Your task to perform on an android device: Is it going to rain tomorrow? Image 0: 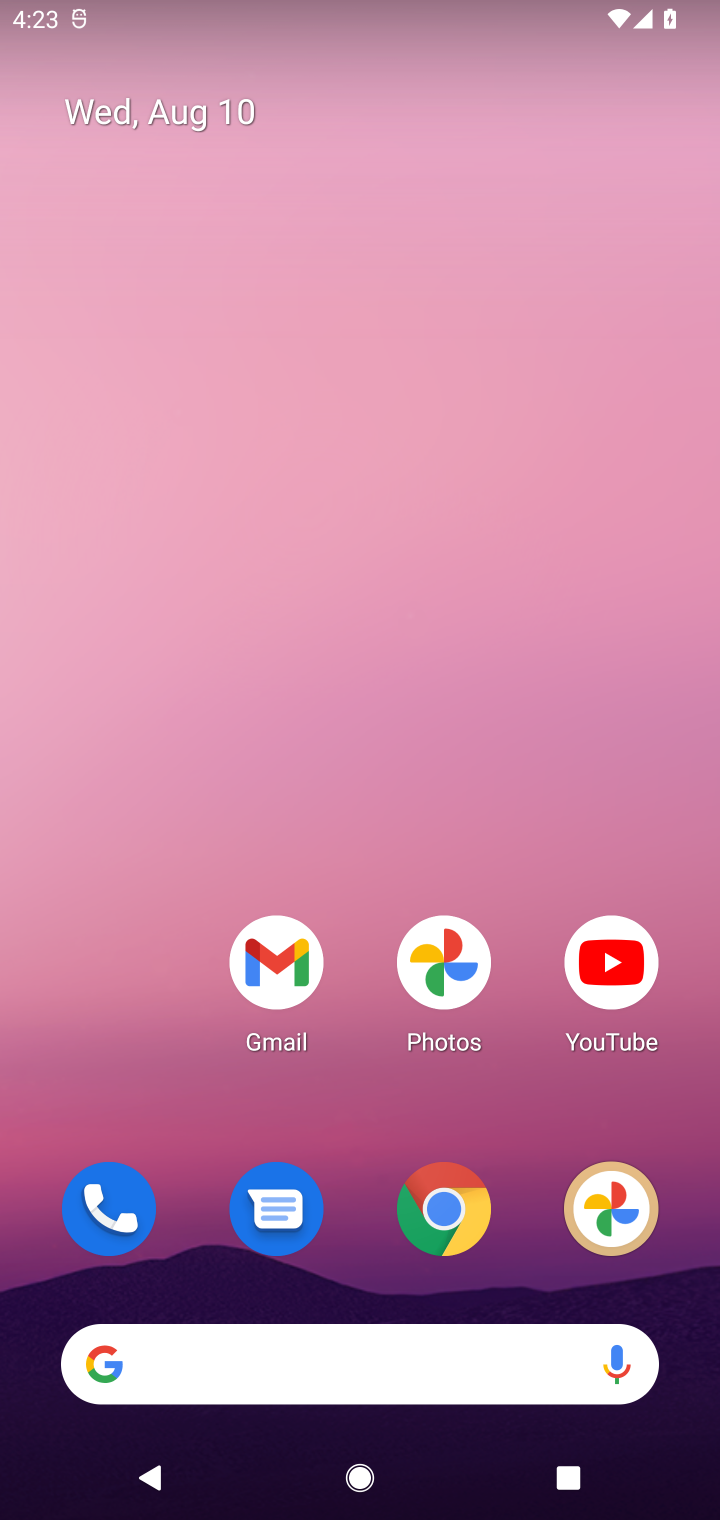
Step 0: click (350, 1370)
Your task to perform on an android device: Is it going to rain tomorrow? Image 1: 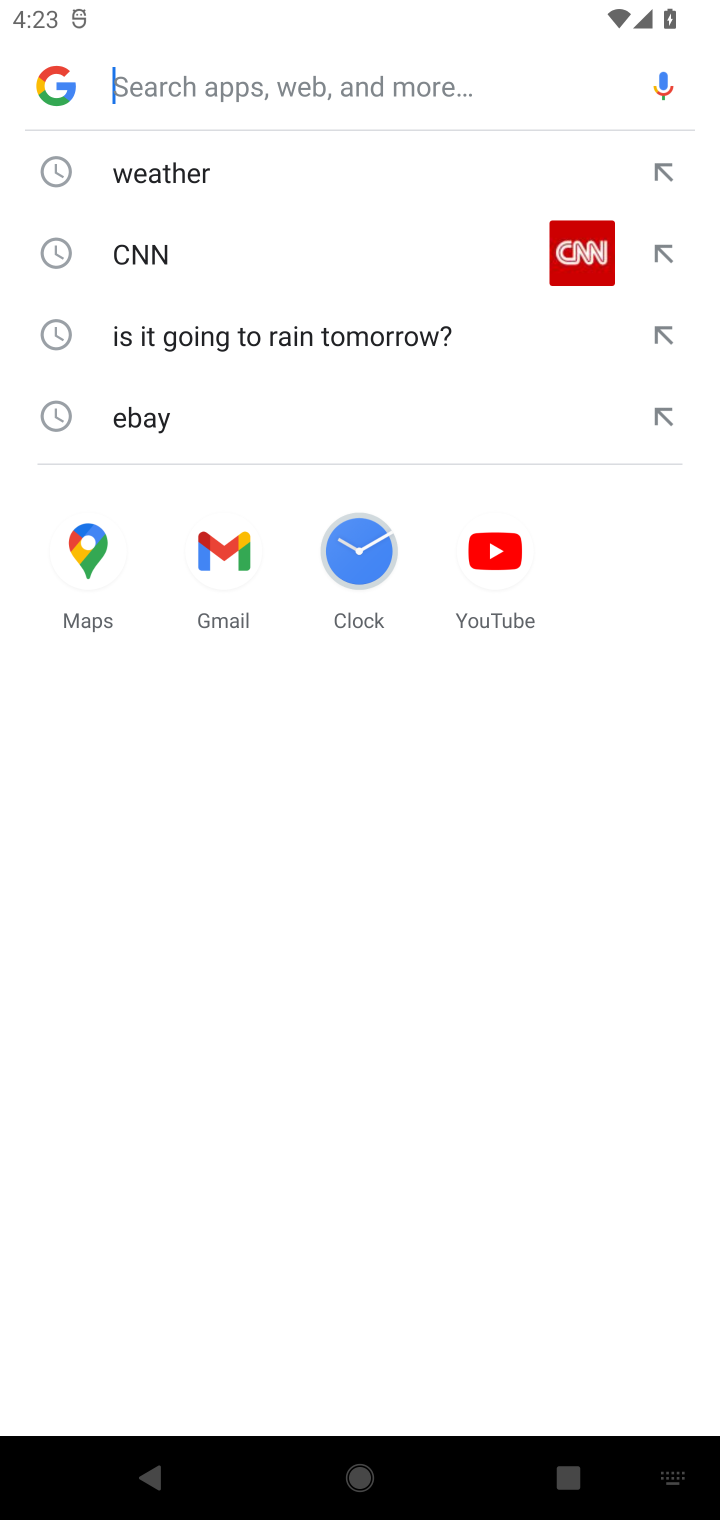
Step 1: click (326, 171)
Your task to perform on an android device: Is it going to rain tomorrow? Image 2: 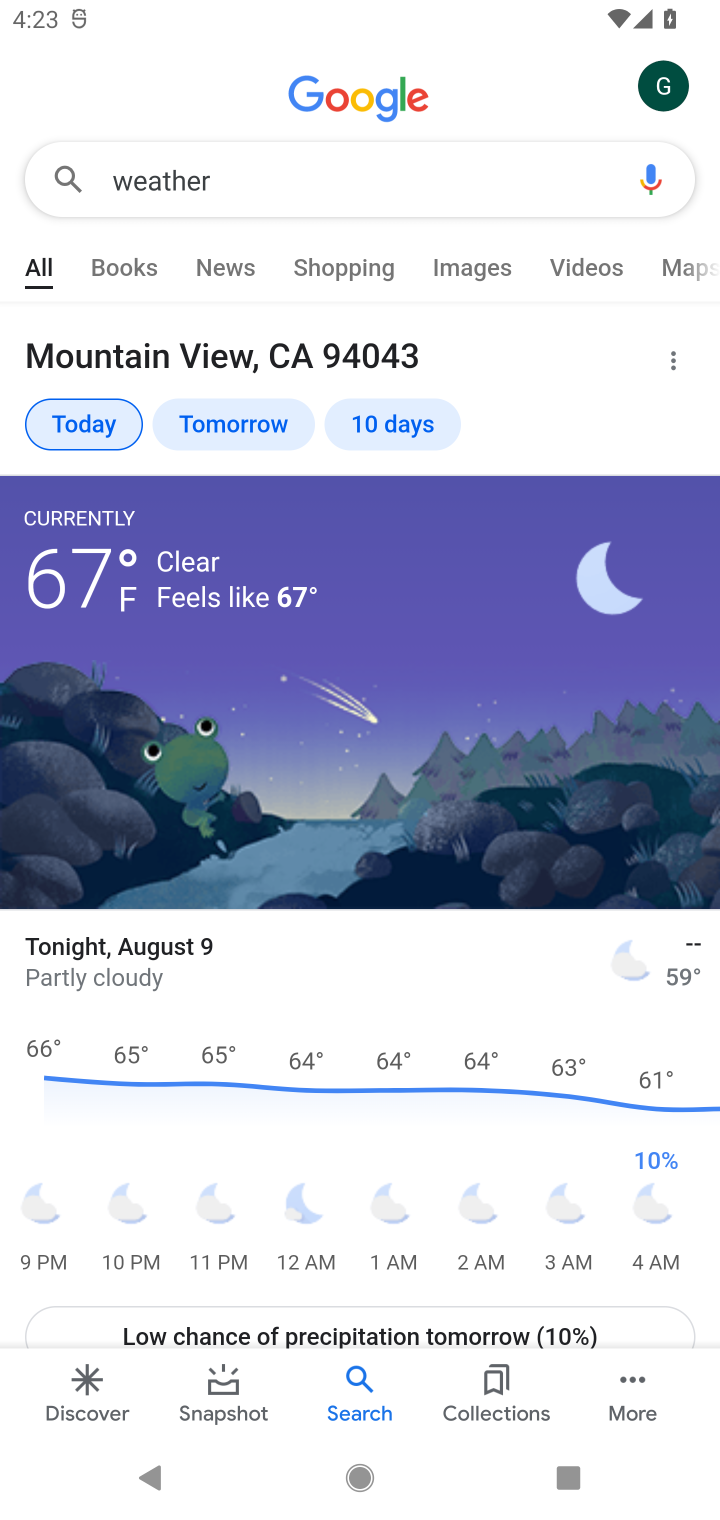
Step 2: click (228, 419)
Your task to perform on an android device: Is it going to rain tomorrow? Image 3: 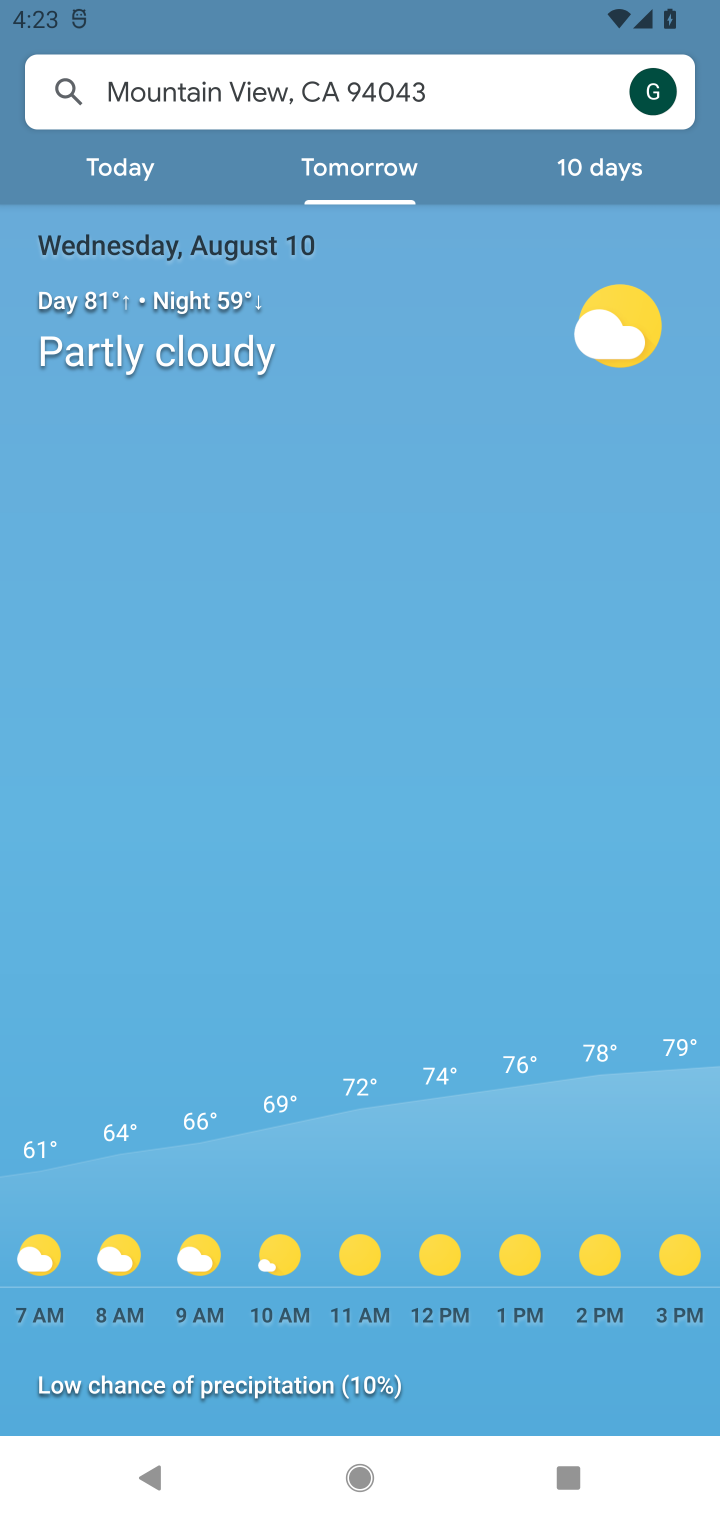
Step 3: task complete